Your task to perform on an android device: Open Amazon Image 0: 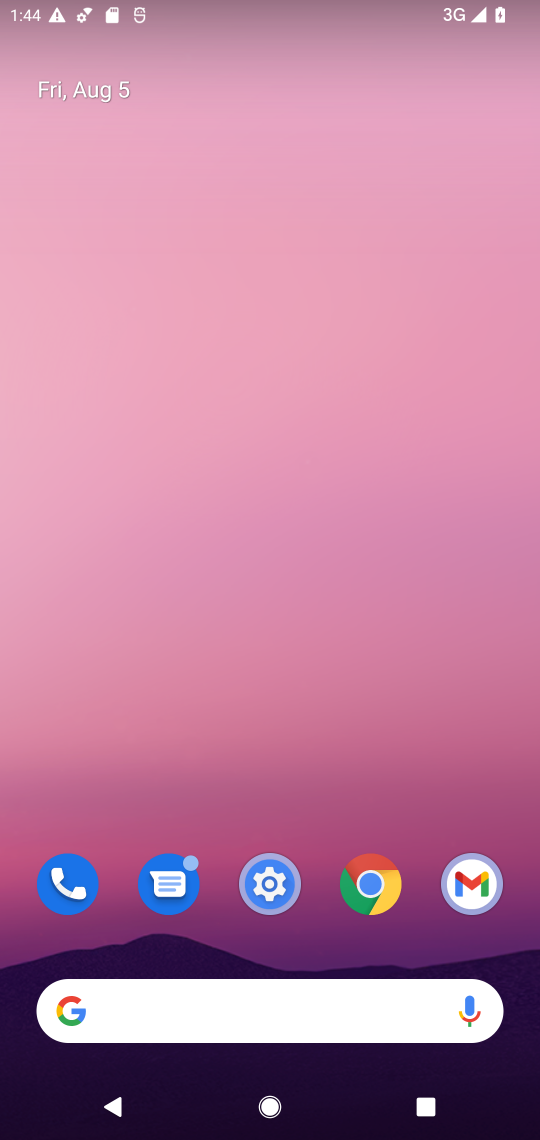
Step 0: drag from (464, 936) to (306, 6)
Your task to perform on an android device: Open Amazon Image 1: 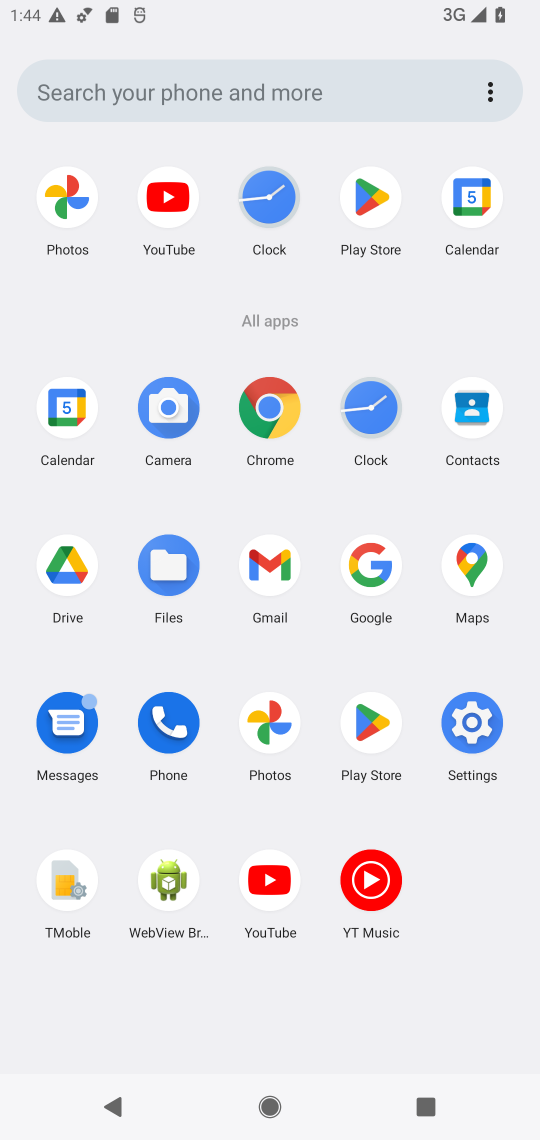
Step 1: click (379, 539)
Your task to perform on an android device: Open Amazon Image 2: 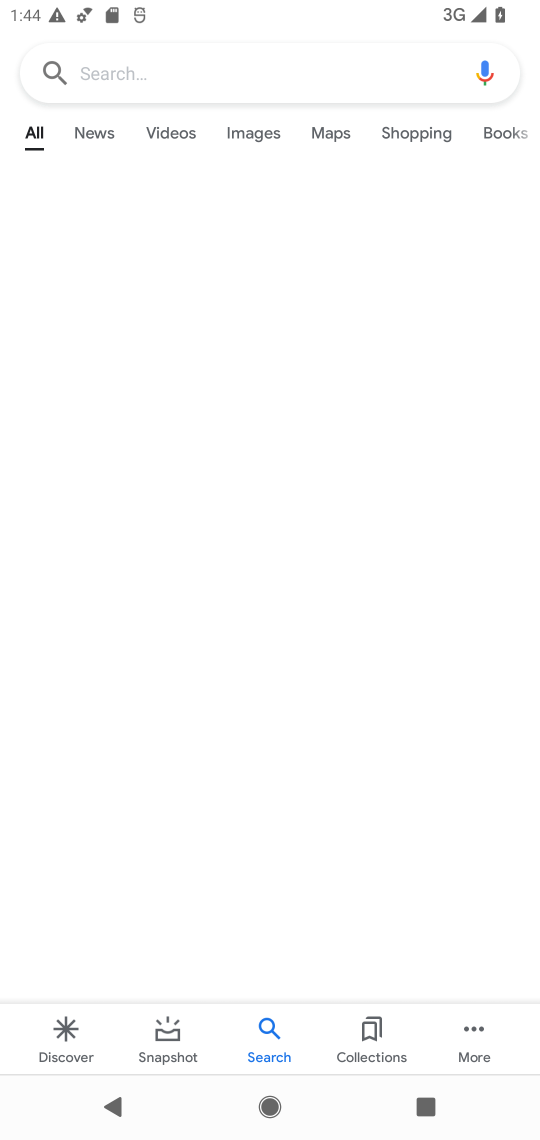
Step 2: click (141, 71)
Your task to perform on an android device: Open Amazon Image 3: 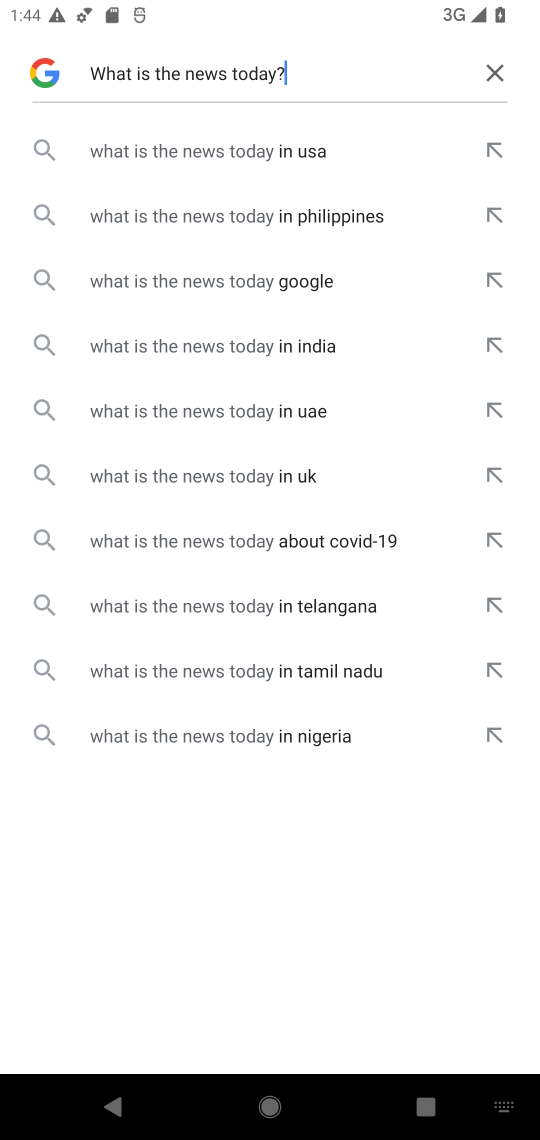
Step 3: click (500, 77)
Your task to perform on an android device: Open Amazon Image 4: 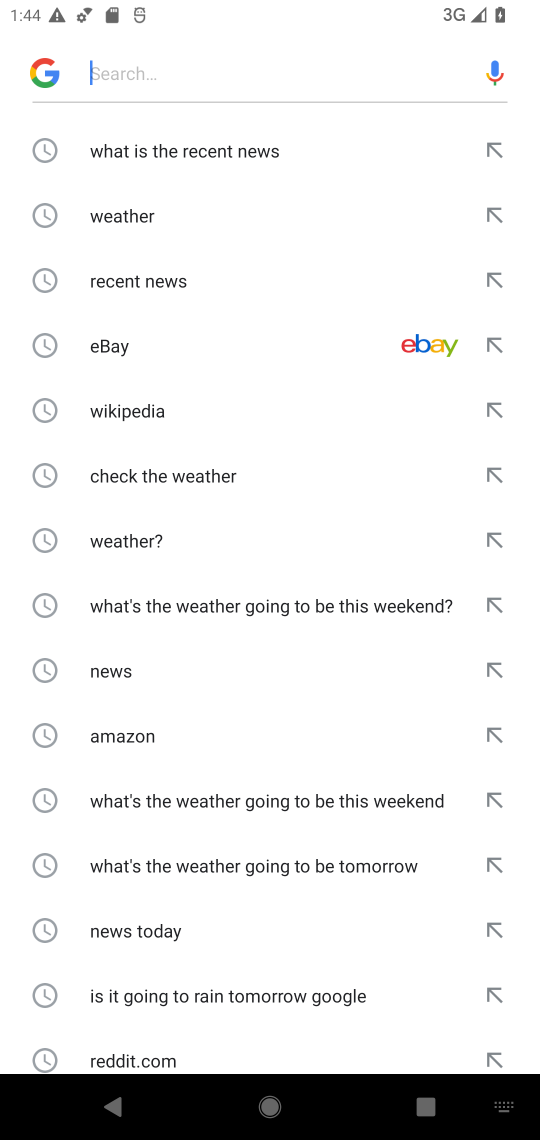
Step 4: type "Amazon"
Your task to perform on an android device: Open Amazon Image 5: 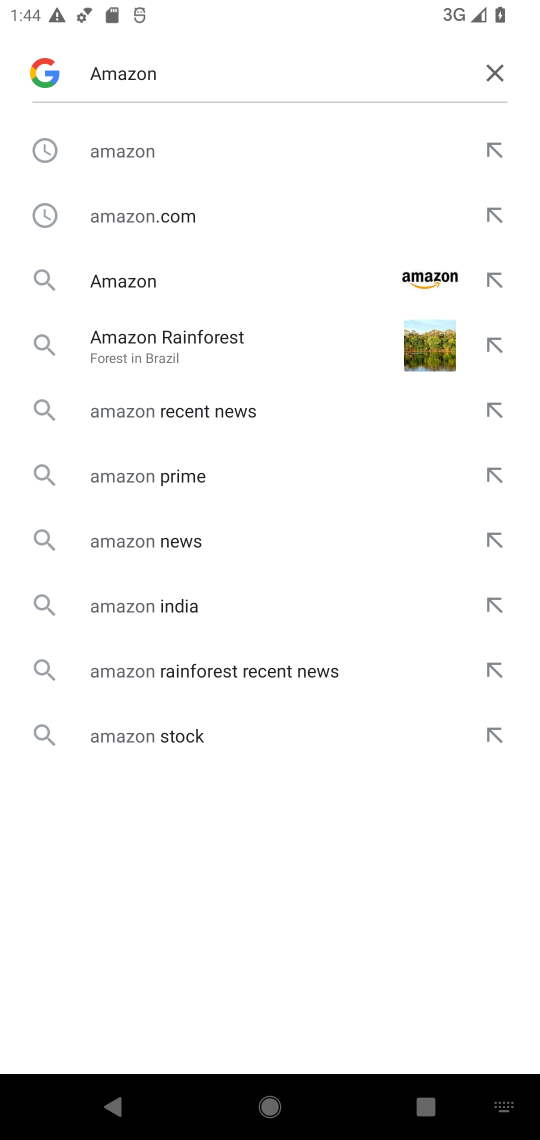
Step 5: click (139, 279)
Your task to perform on an android device: Open Amazon Image 6: 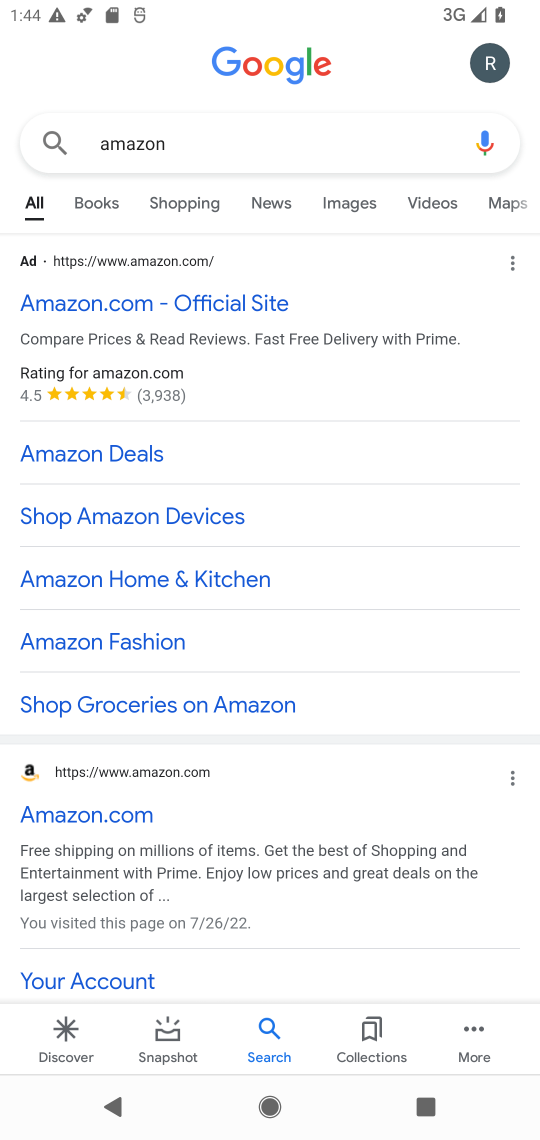
Step 6: task complete